Your task to perform on an android device: turn on notifications settings in the gmail app Image 0: 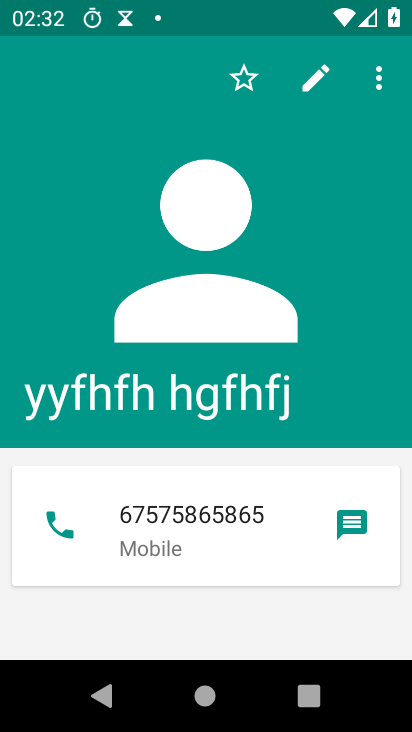
Step 0: press home button
Your task to perform on an android device: turn on notifications settings in the gmail app Image 1: 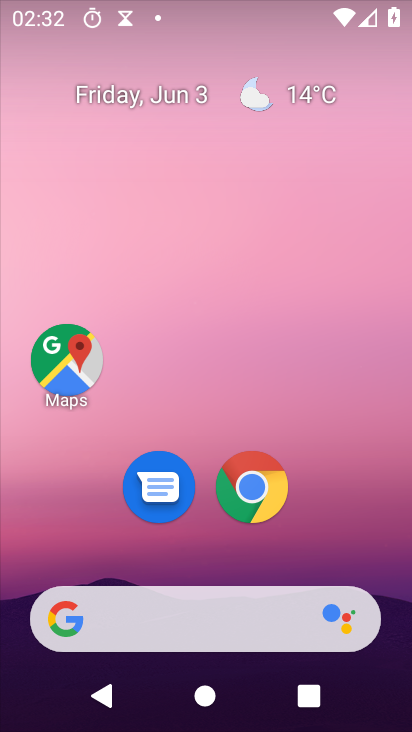
Step 1: drag from (315, 344) to (225, 66)
Your task to perform on an android device: turn on notifications settings in the gmail app Image 2: 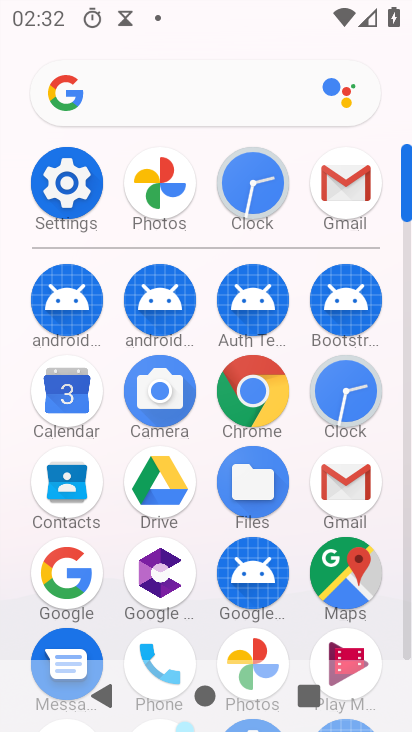
Step 2: click (351, 163)
Your task to perform on an android device: turn on notifications settings in the gmail app Image 3: 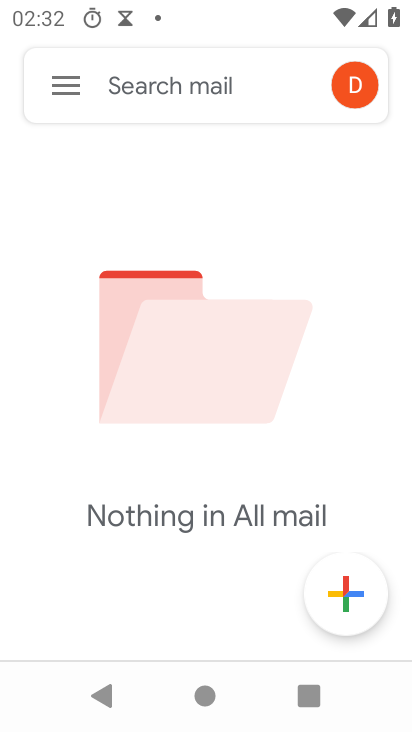
Step 3: click (60, 89)
Your task to perform on an android device: turn on notifications settings in the gmail app Image 4: 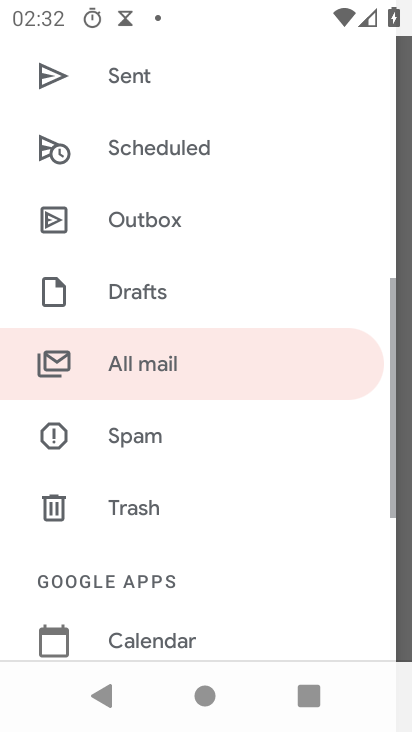
Step 4: drag from (224, 475) to (198, 0)
Your task to perform on an android device: turn on notifications settings in the gmail app Image 5: 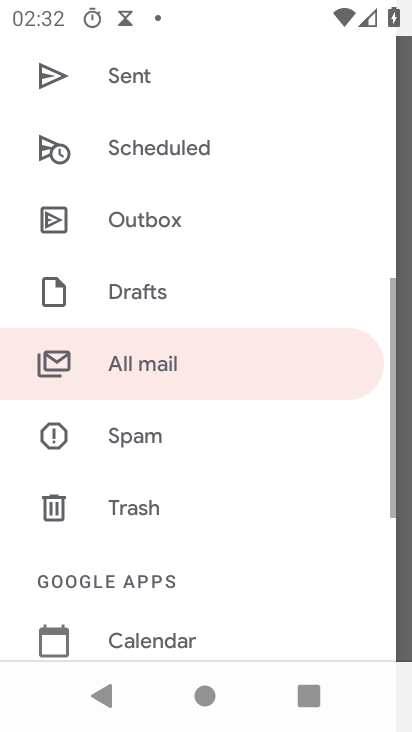
Step 5: drag from (204, 485) to (232, 120)
Your task to perform on an android device: turn on notifications settings in the gmail app Image 6: 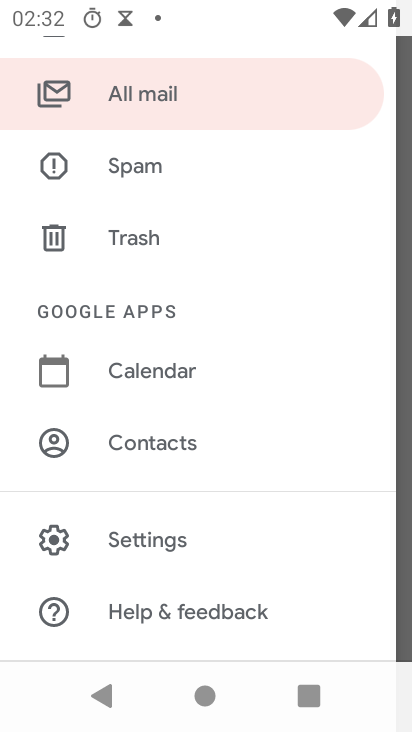
Step 6: click (154, 520)
Your task to perform on an android device: turn on notifications settings in the gmail app Image 7: 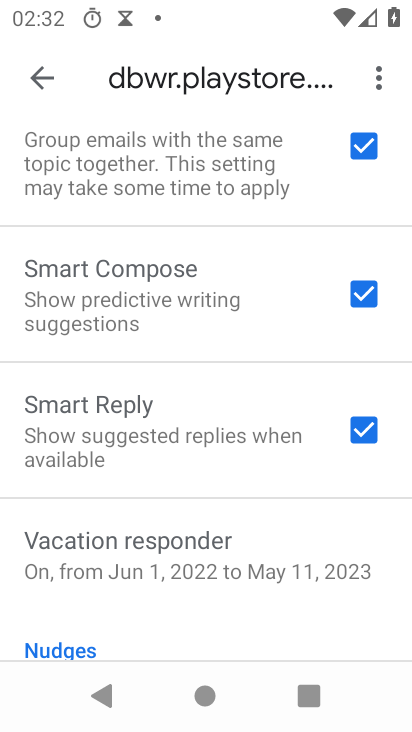
Step 7: drag from (184, 199) to (167, 707)
Your task to perform on an android device: turn on notifications settings in the gmail app Image 8: 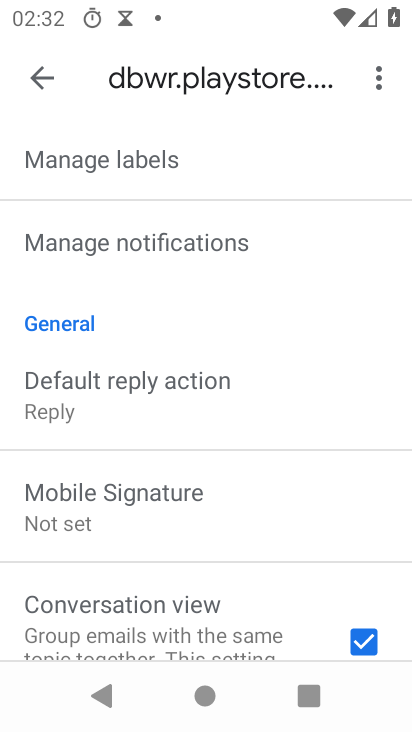
Step 8: click (142, 240)
Your task to perform on an android device: turn on notifications settings in the gmail app Image 9: 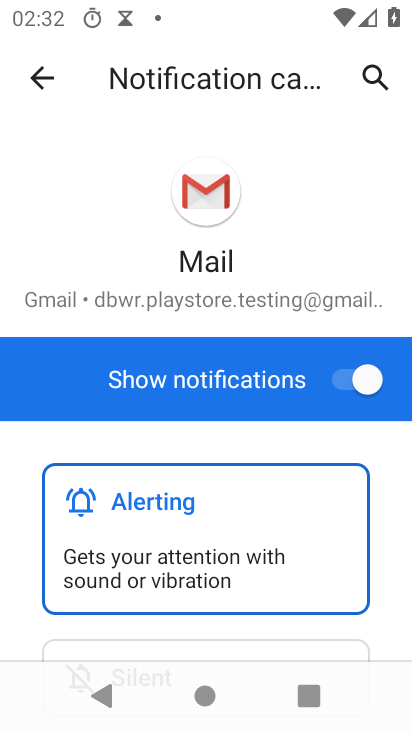
Step 9: task complete